Your task to perform on an android device: check out phone information Image 0: 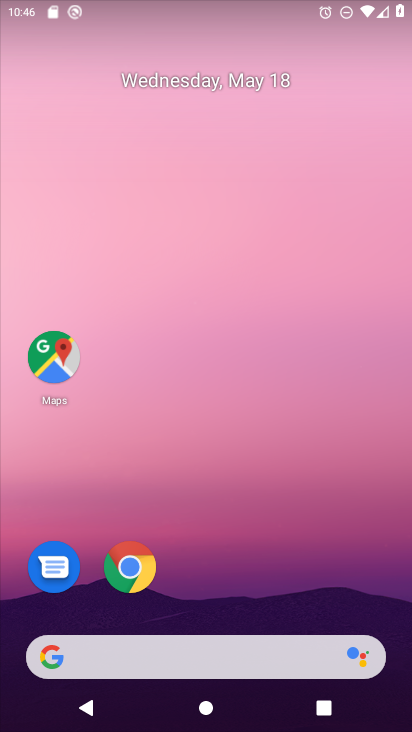
Step 0: press home button
Your task to perform on an android device: check out phone information Image 1: 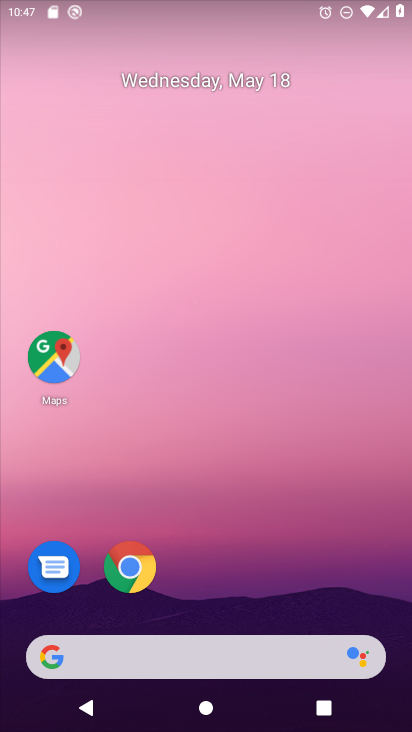
Step 1: drag from (270, 683) to (387, 202)
Your task to perform on an android device: check out phone information Image 2: 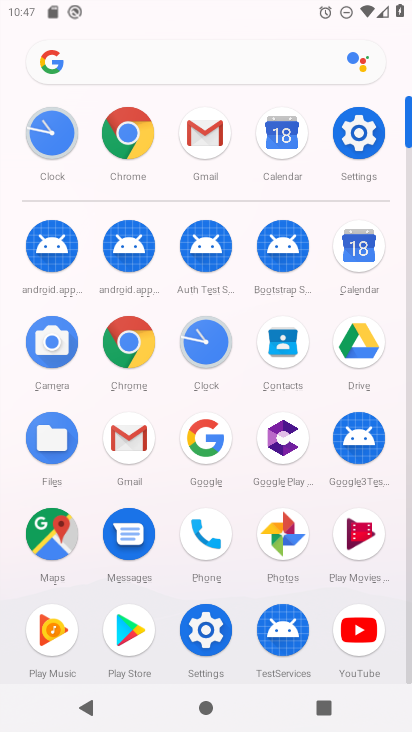
Step 2: click (373, 133)
Your task to perform on an android device: check out phone information Image 3: 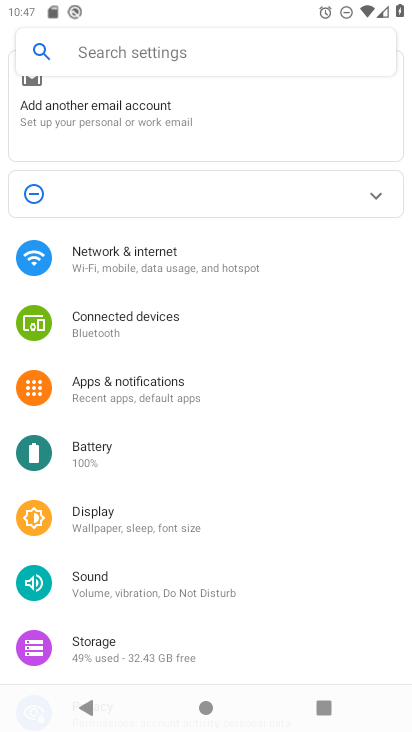
Step 3: click (156, 59)
Your task to perform on an android device: check out phone information Image 4: 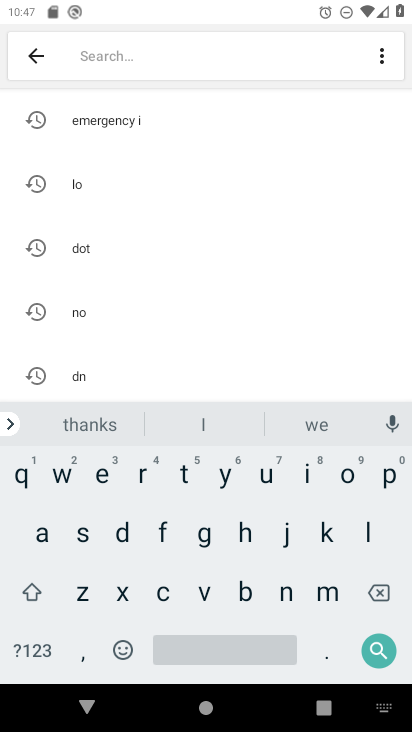
Step 4: click (35, 532)
Your task to perform on an android device: check out phone information Image 5: 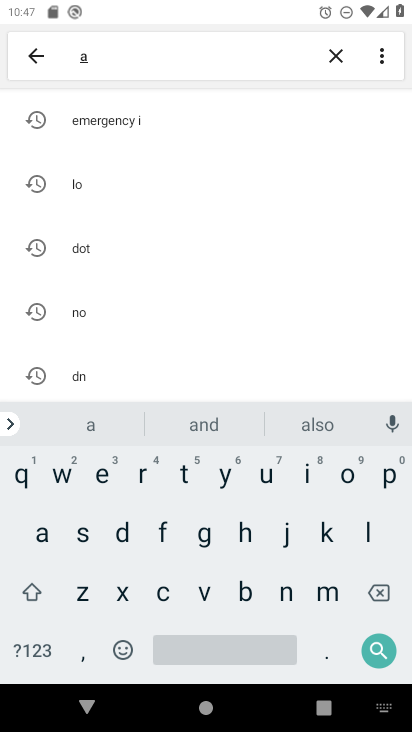
Step 5: click (244, 594)
Your task to perform on an android device: check out phone information Image 6: 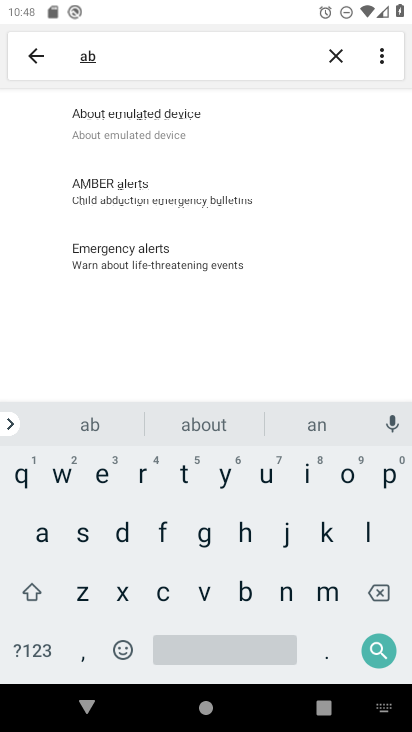
Step 6: click (180, 136)
Your task to perform on an android device: check out phone information Image 7: 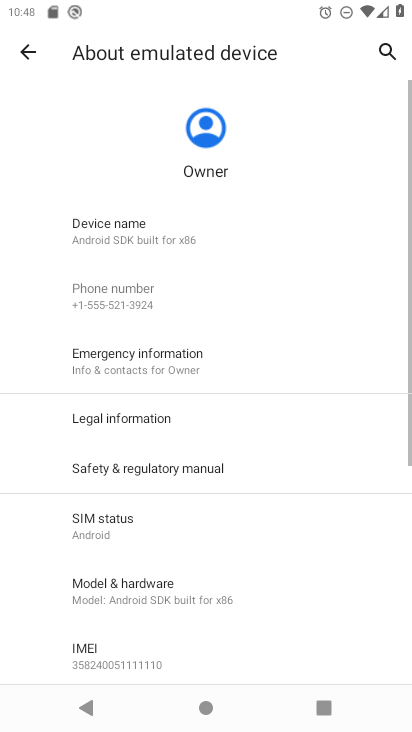
Step 7: task complete